Your task to perform on an android device: change text size in settings app Image 0: 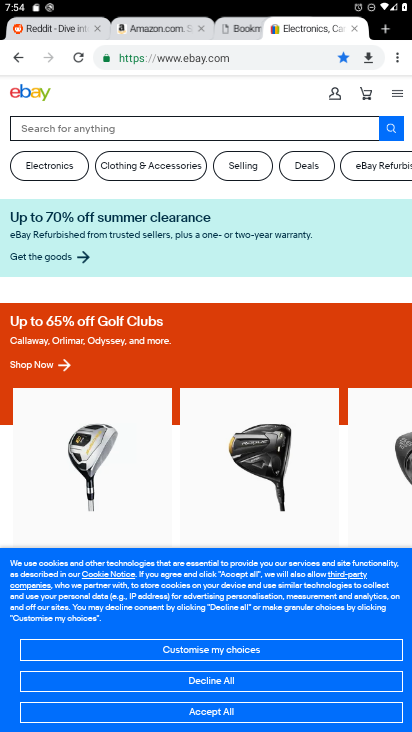
Step 0: press home button
Your task to perform on an android device: change text size in settings app Image 1: 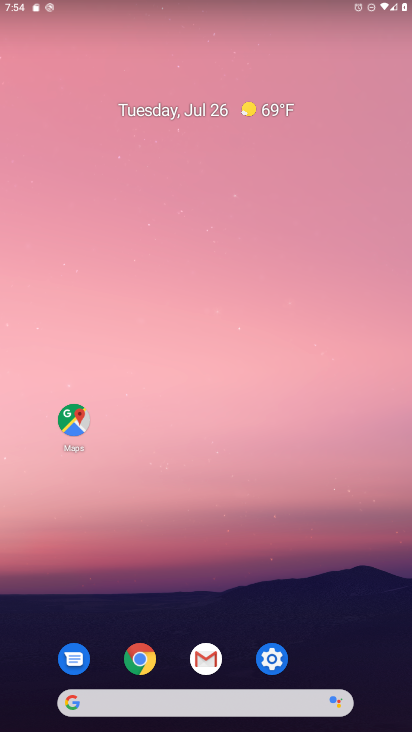
Step 1: click (273, 668)
Your task to perform on an android device: change text size in settings app Image 2: 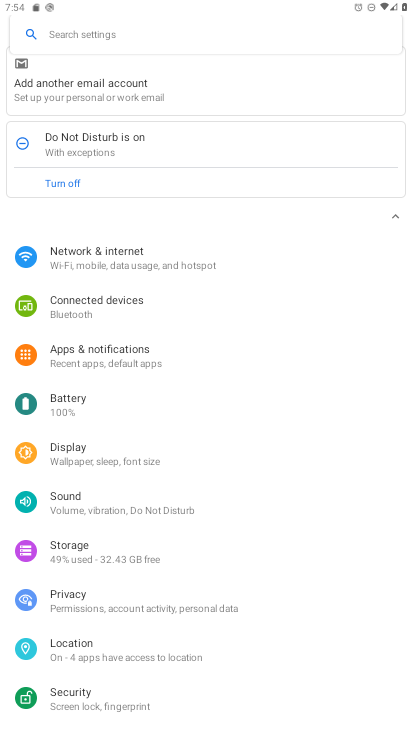
Step 2: click (91, 35)
Your task to perform on an android device: change text size in settings app Image 3: 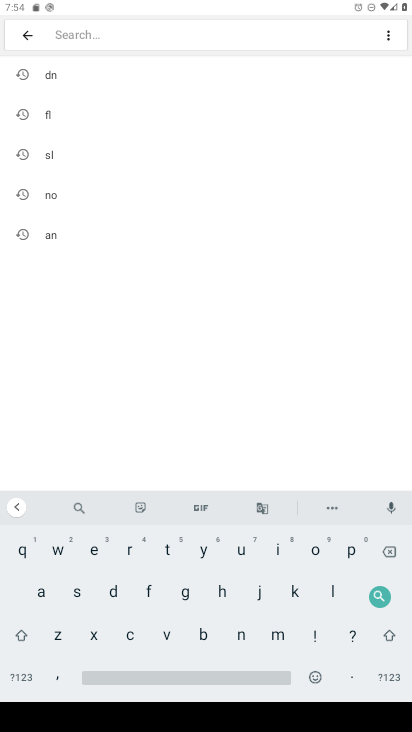
Step 3: click (158, 554)
Your task to perform on an android device: change text size in settings app Image 4: 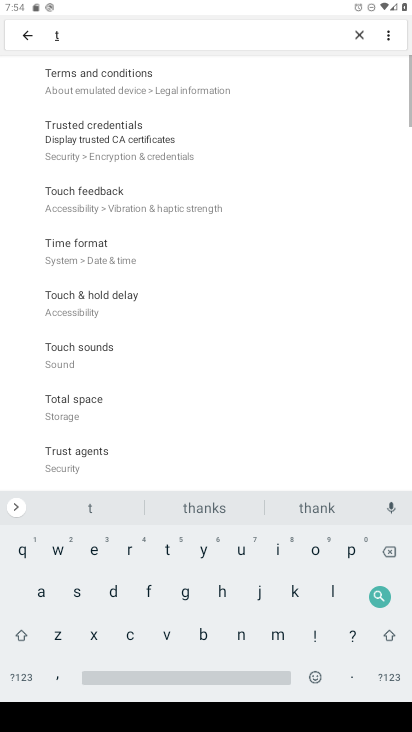
Step 4: click (95, 551)
Your task to perform on an android device: change text size in settings app Image 5: 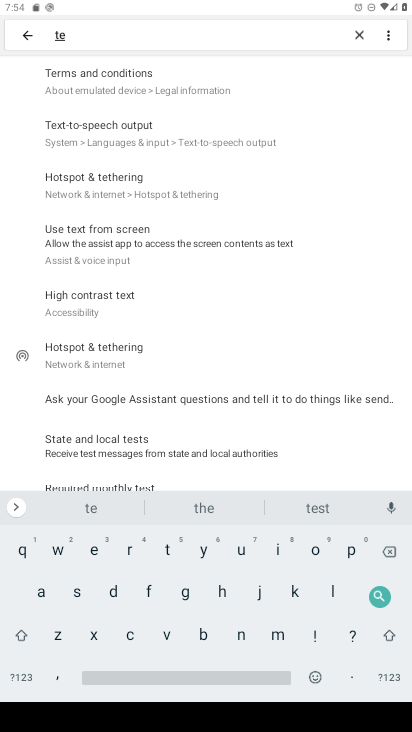
Step 5: click (356, 36)
Your task to perform on an android device: change text size in settings app Image 6: 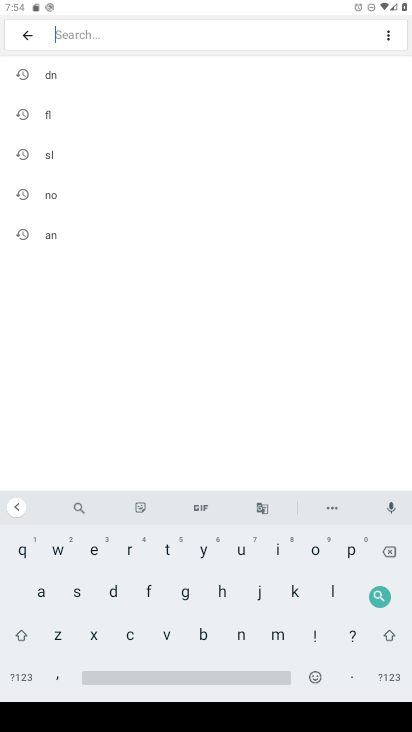
Step 6: click (75, 593)
Your task to perform on an android device: change text size in settings app Image 7: 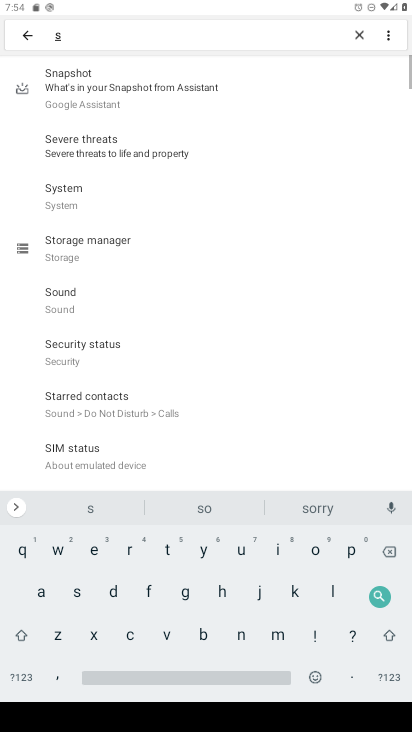
Step 7: click (276, 549)
Your task to perform on an android device: change text size in settings app Image 8: 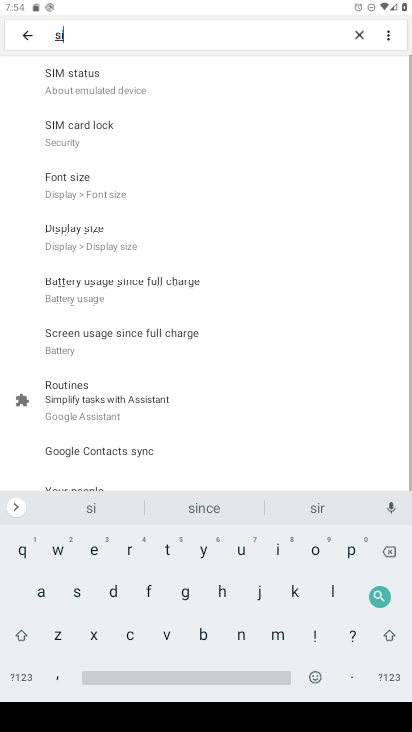
Step 8: click (50, 636)
Your task to perform on an android device: change text size in settings app Image 9: 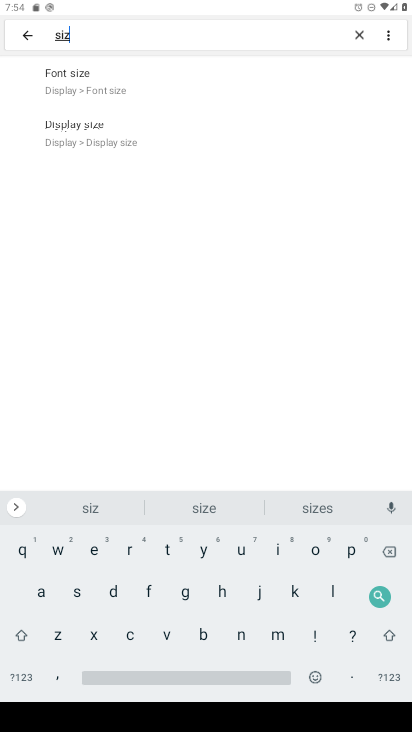
Step 9: click (163, 75)
Your task to perform on an android device: change text size in settings app Image 10: 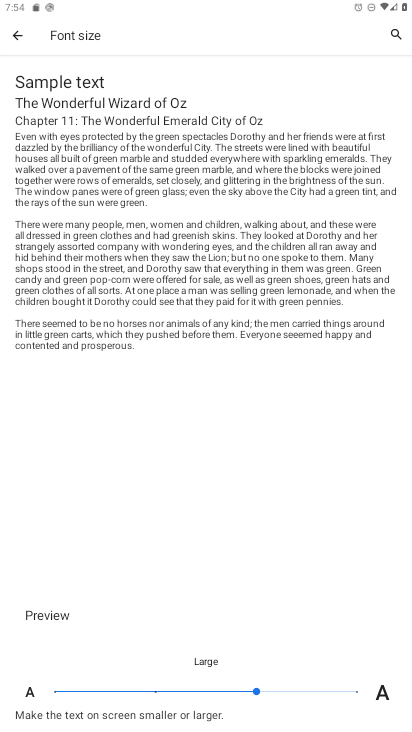
Step 10: click (162, 687)
Your task to perform on an android device: change text size in settings app Image 11: 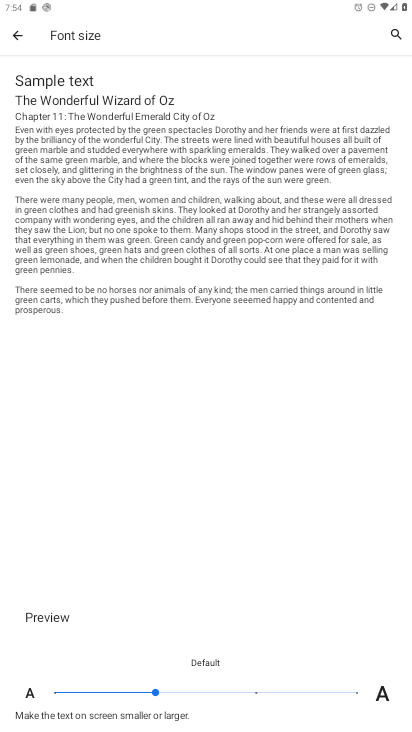
Step 11: click (243, 693)
Your task to perform on an android device: change text size in settings app Image 12: 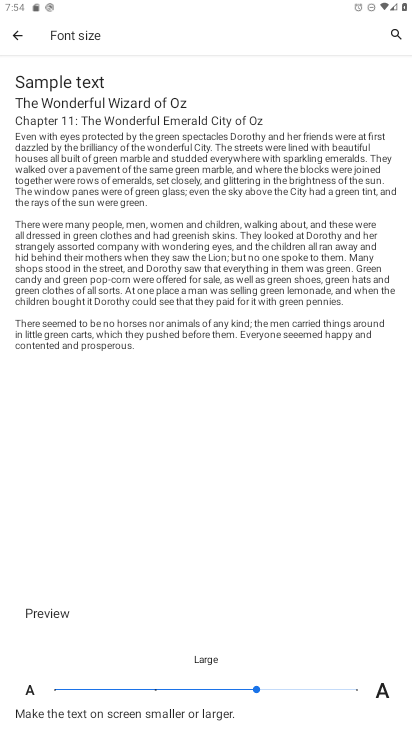
Step 12: task complete